Your task to perform on an android device: Open the phone app and click the voicemail tab. Image 0: 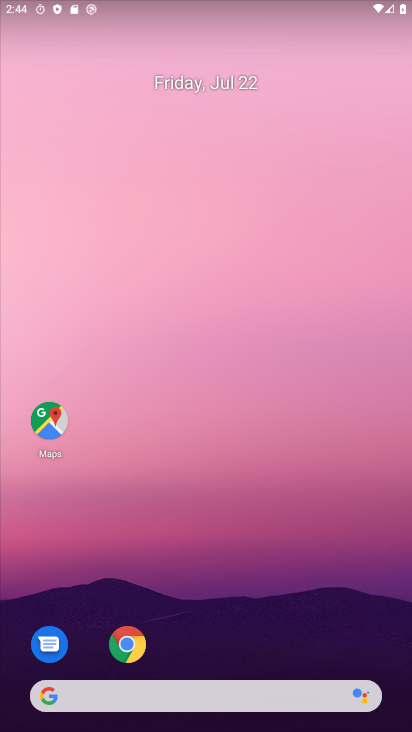
Step 0: press home button
Your task to perform on an android device: Open the phone app and click the voicemail tab. Image 1: 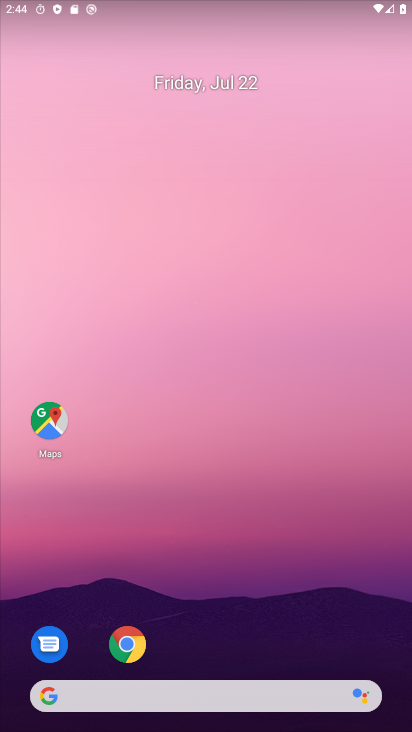
Step 1: drag from (225, 629) to (276, 155)
Your task to perform on an android device: Open the phone app and click the voicemail tab. Image 2: 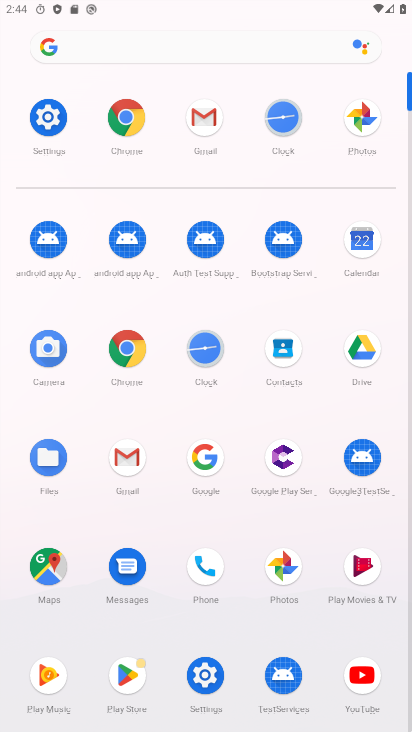
Step 2: click (202, 572)
Your task to perform on an android device: Open the phone app and click the voicemail tab. Image 3: 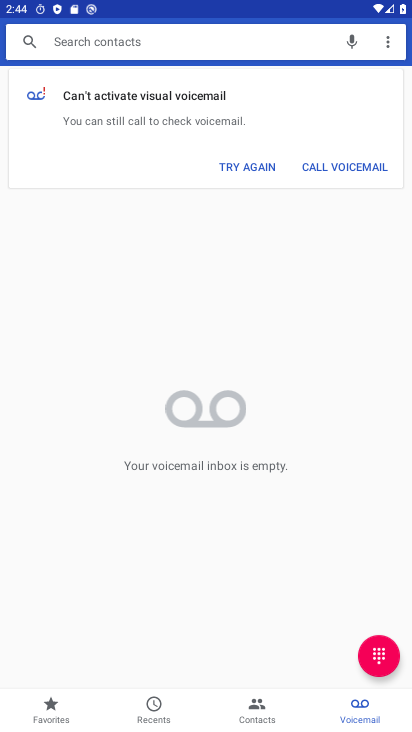
Step 3: click (354, 707)
Your task to perform on an android device: Open the phone app and click the voicemail tab. Image 4: 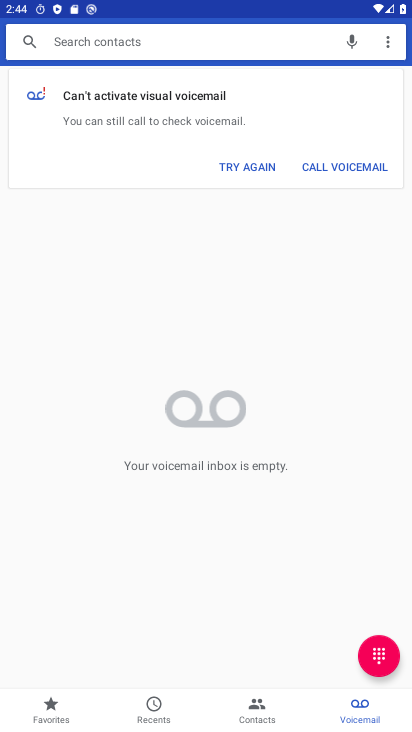
Step 4: task complete